Your task to perform on an android device: set an alarm Image 0: 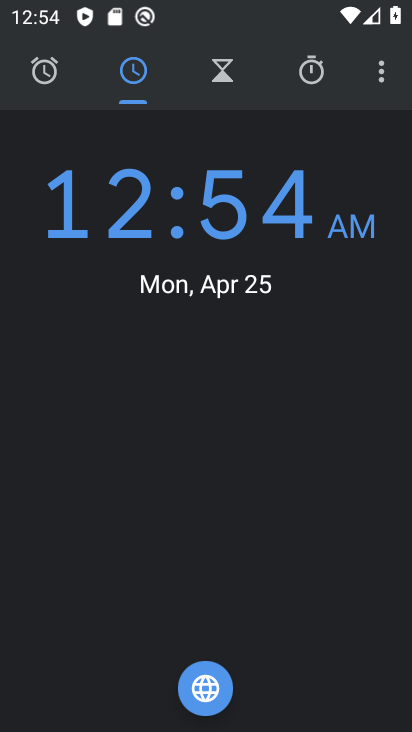
Step 0: click (40, 76)
Your task to perform on an android device: set an alarm Image 1: 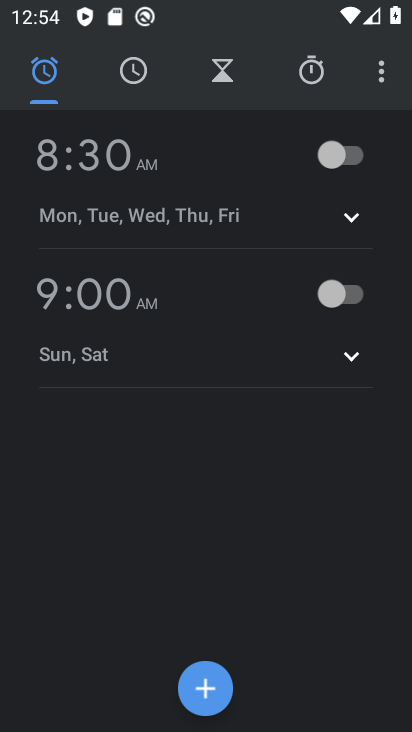
Step 1: click (200, 692)
Your task to perform on an android device: set an alarm Image 2: 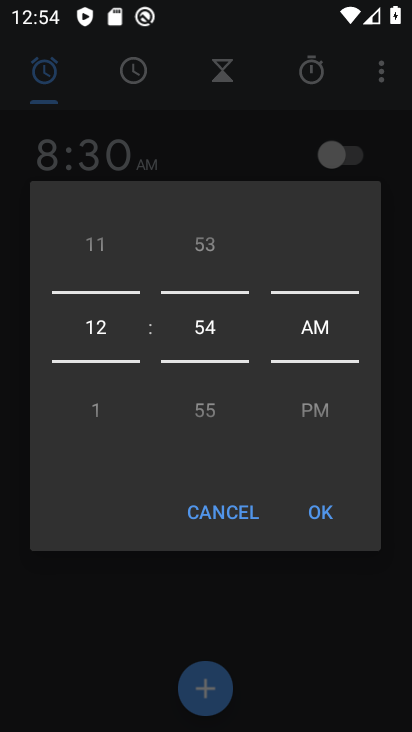
Step 2: drag from (90, 360) to (100, 510)
Your task to perform on an android device: set an alarm Image 3: 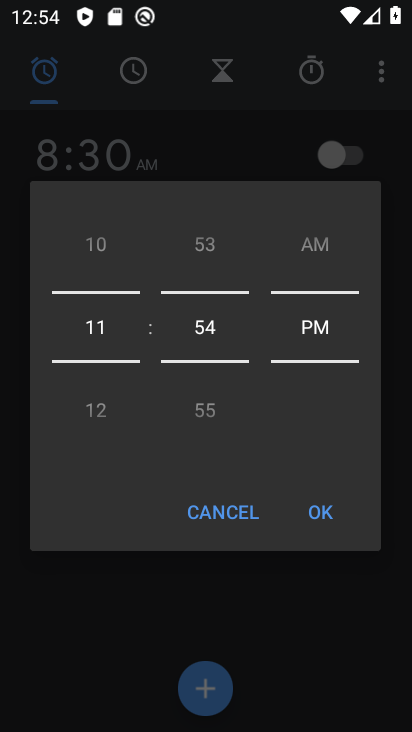
Step 3: click (329, 504)
Your task to perform on an android device: set an alarm Image 4: 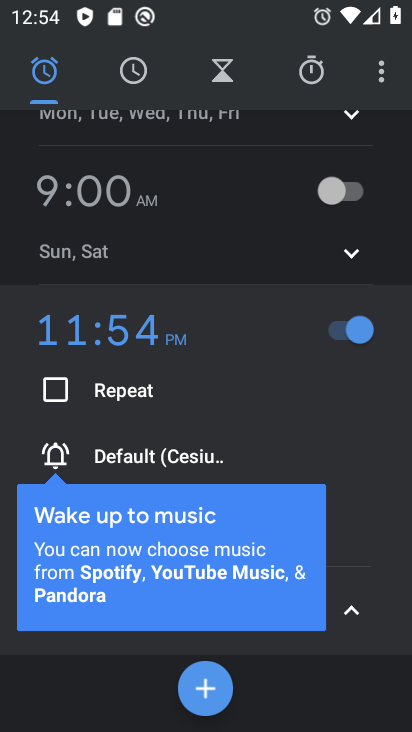
Step 4: click (286, 466)
Your task to perform on an android device: set an alarm Image 5: 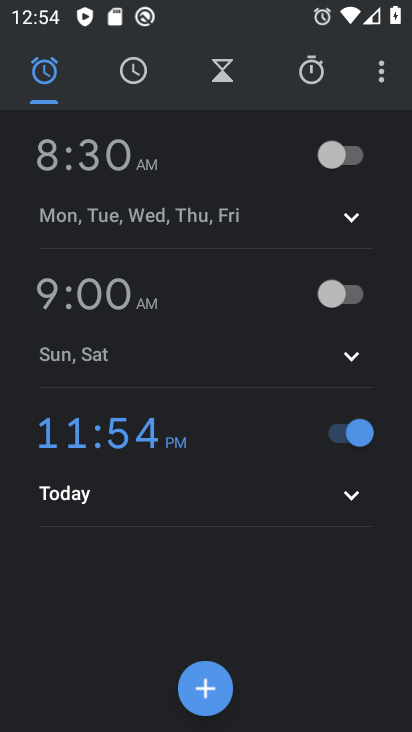
Step 5: task complete